Your task to perform on an android device: turn on wifi Image 0: 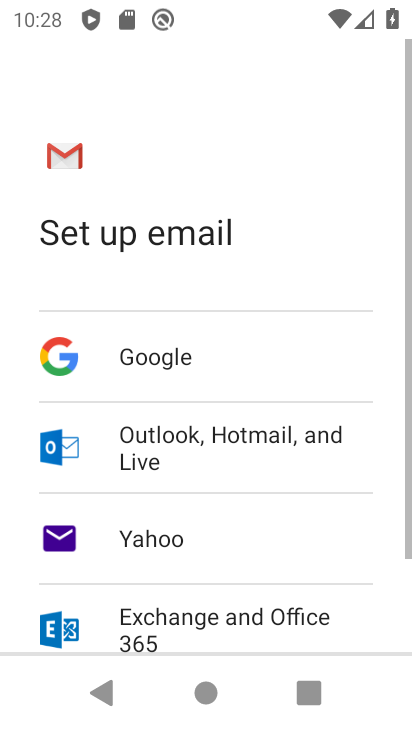
Step 0: press home button
Your task to perform on an android device: turn on wifi Image 1: 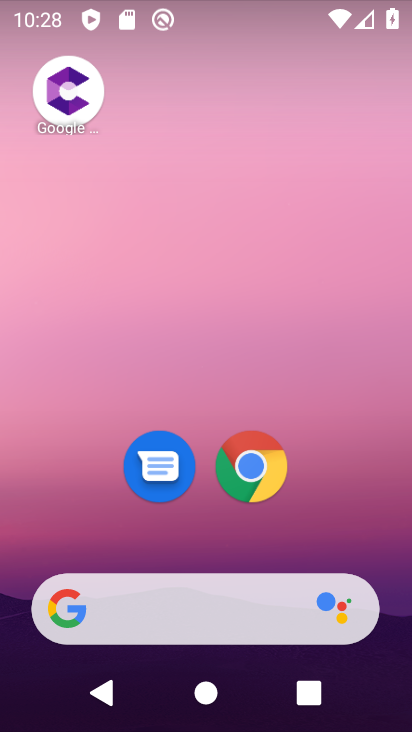
Step 1: task complete